Your task to perform on an android device: What is the recent news? Image 0: 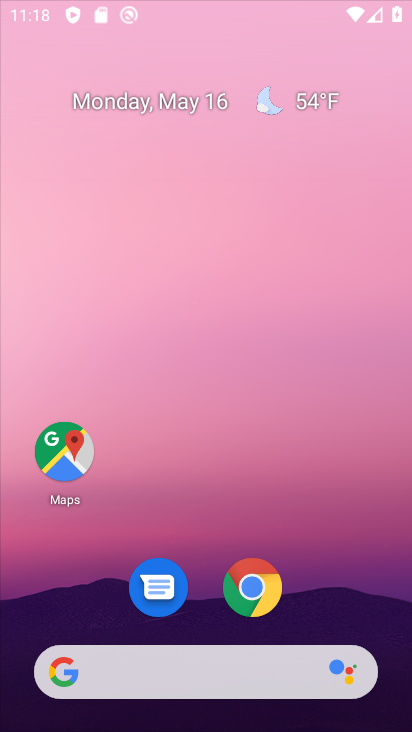
Step 0: click (190, 33)
Your task to perform on an android device: What is the recent news? Image 1: 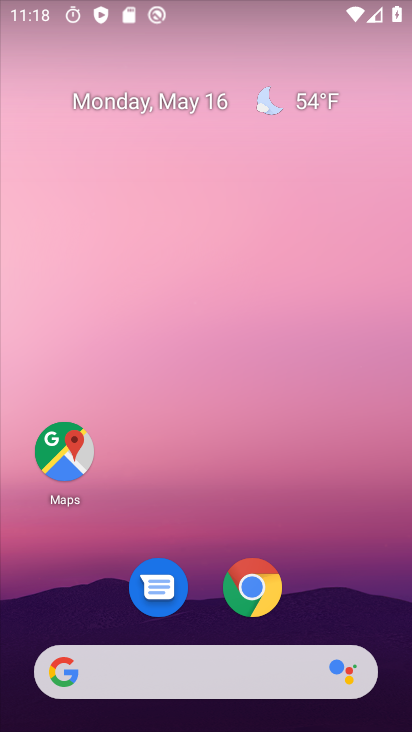
Step 1: drag from (206, 660) to (207, 116)
Your task to perform on an android device: What is the recent news? Image 2: 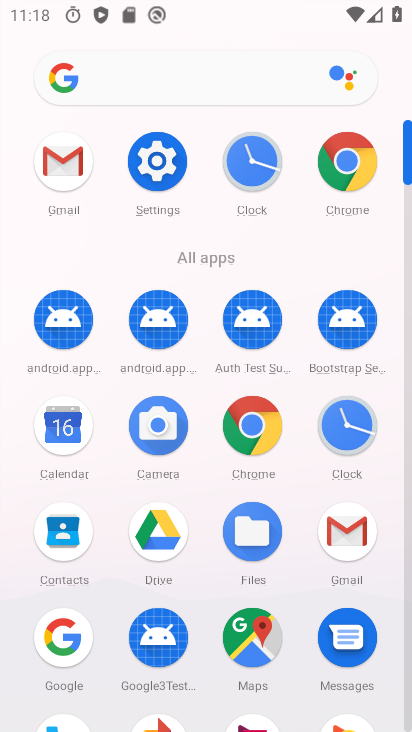
Step 2: click (201, 85)
Your task to perform on an android device: What is the recent news? Image 3: 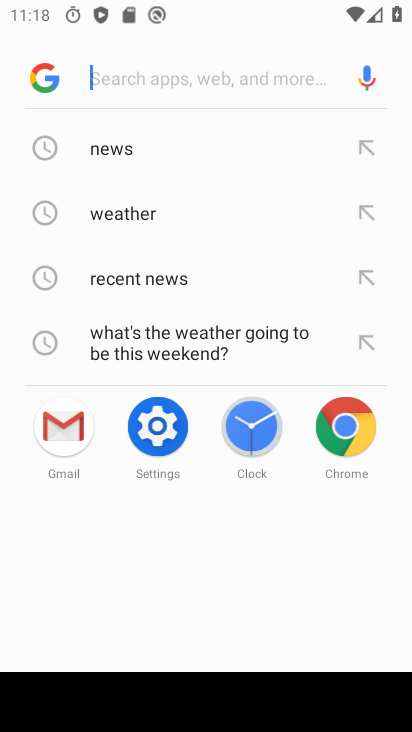
Step 3: click (188, 277)
Your task to perform on an android device: What is the recent news? Image 4: 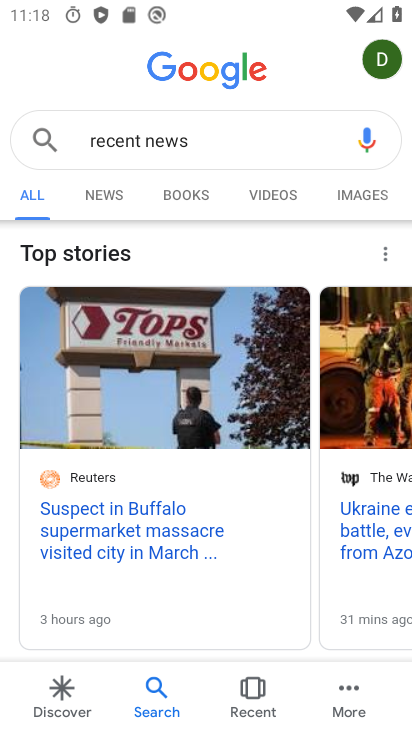
Step 4: task complete